Your task to perform on an android device: Show me the alarms in the clock app Image 0: 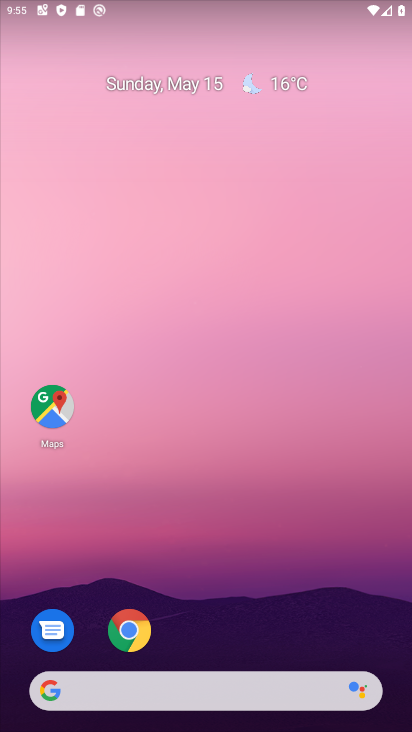
Step 0: drag from (216, 658) to (181, 216)
Your task to perform on an android device: Show me the alarms in the clock app Image 1: 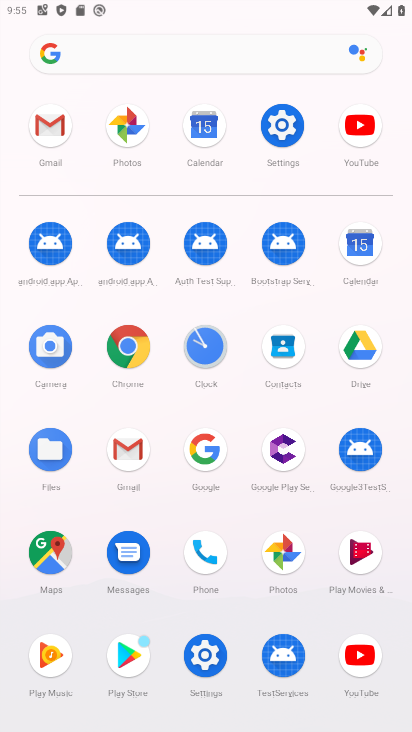
Step 1: click (188, 340)
Your task to perform on an android device: Show me the alarms in the clock app Image 2: 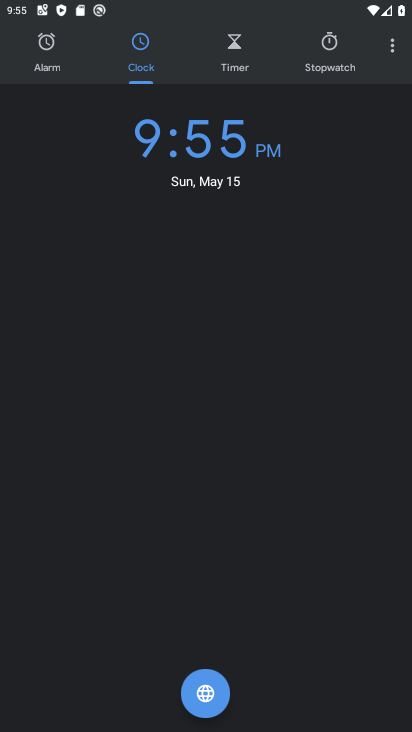
Step 2: click (34, 47)
Your task to perform on an android device: Show me the alarms in the clock app Image 3: 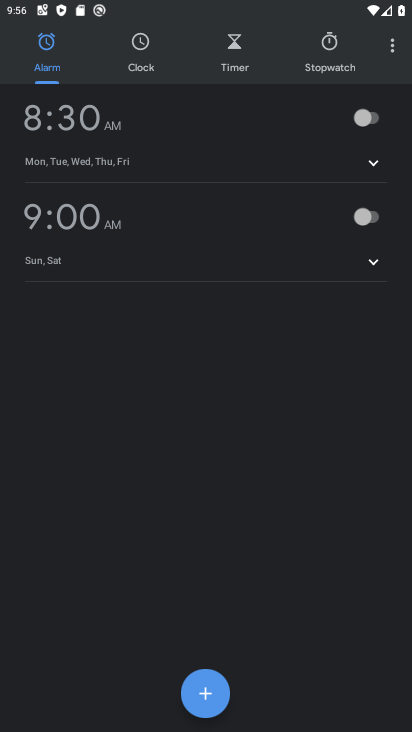
Step 3: task complete